Your task to perform on an android device: add a label to a message in the gmail app Image 0: 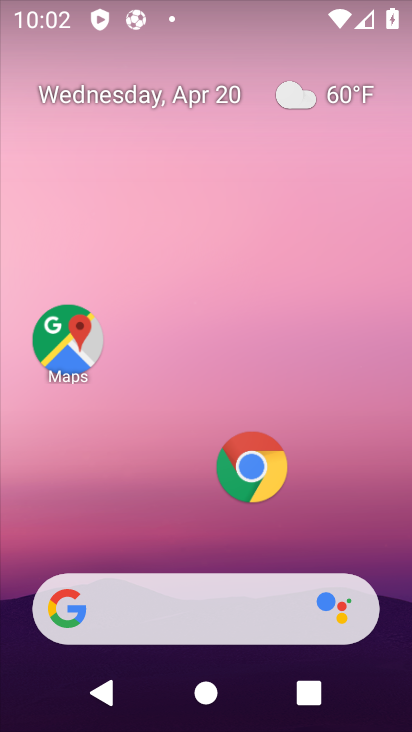
Step 0: drag from (329, 499) to (290, 106)
Your task to perform on an android device: add a label to a message in the gmail app Image 1: 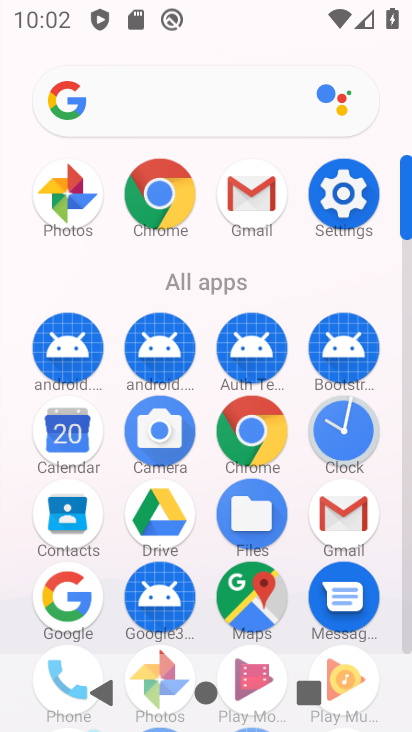
Step 1: click (244, 206)
Your task to perform on an android device: add a label to a message in the gmail app Image 2: 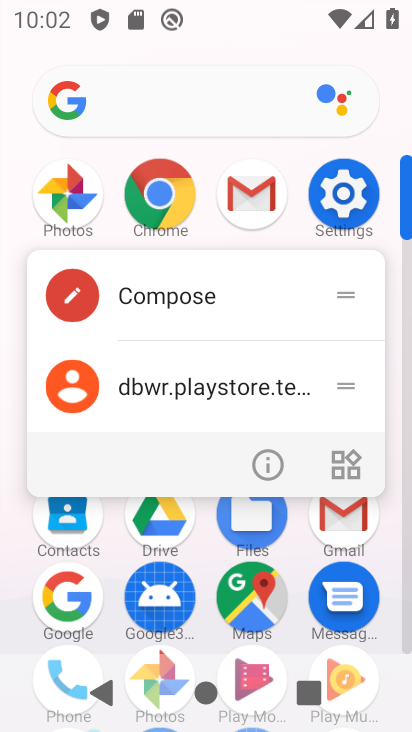
Step 2: click (244, 206)
Your task to perform on an android device: add a label to a message in the gmail app Image 3: 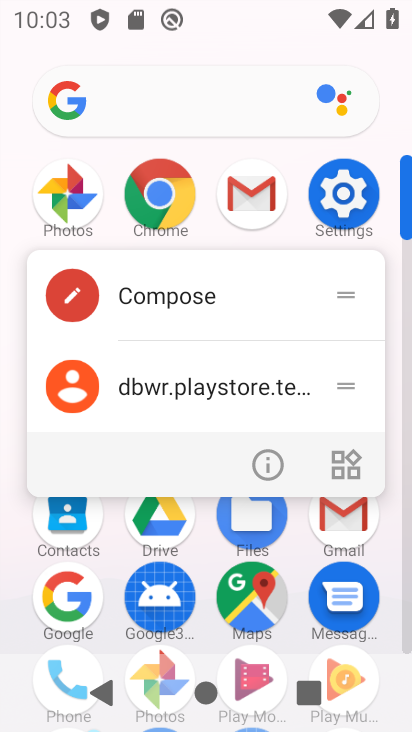
Step 3: click (245, 205)
Your task to perform on an android device: add a label to a message in the gmail app Image 4: 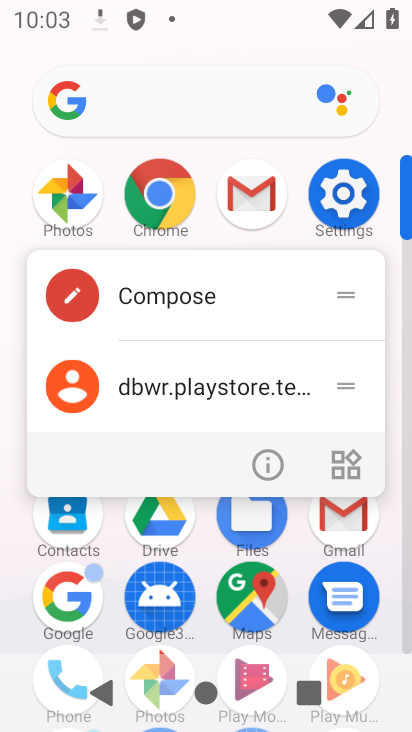
Step 4: click (245, 205)
Your task to perform on an android device: add a label to a message in the gmail app Image 5: 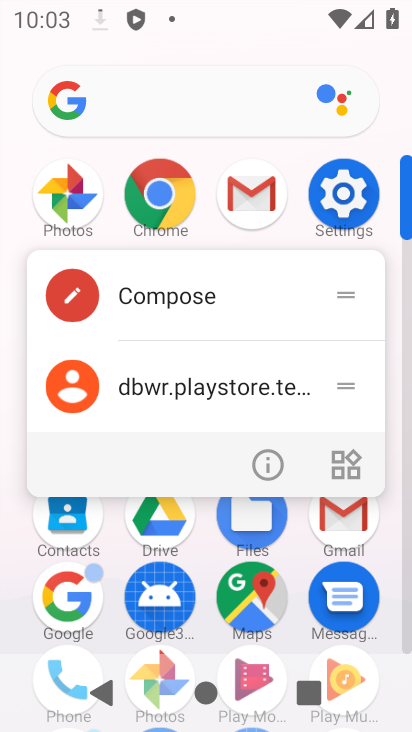
Step 5: click (245, 205)
Your task to perform on an android device: add a label to a message in the gmail app Image 6: 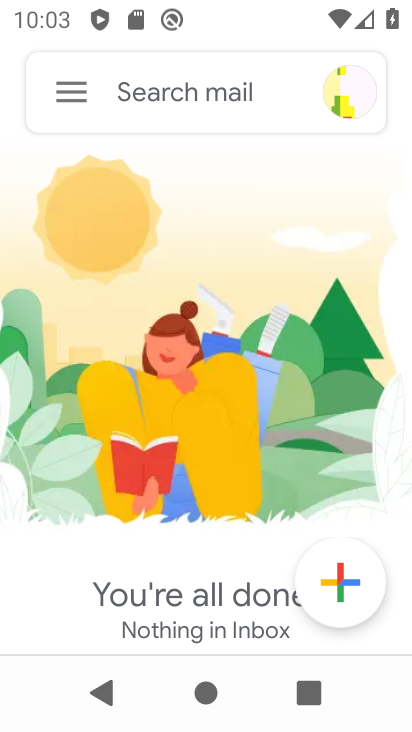
Step 6: click (57, 95)
Your task to perform on an android device: add a label to a message in the gmail app Image 7: 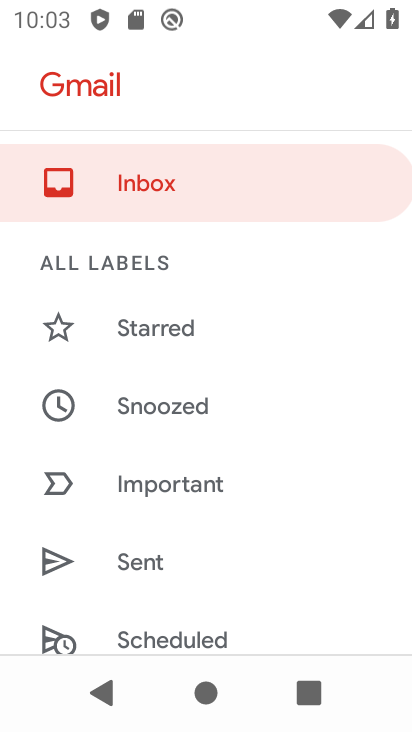
Step 7: drag from (180, 607) to (261, 312)
Your task to perform on an android device: add a label to a message in the gmail app Image 8: 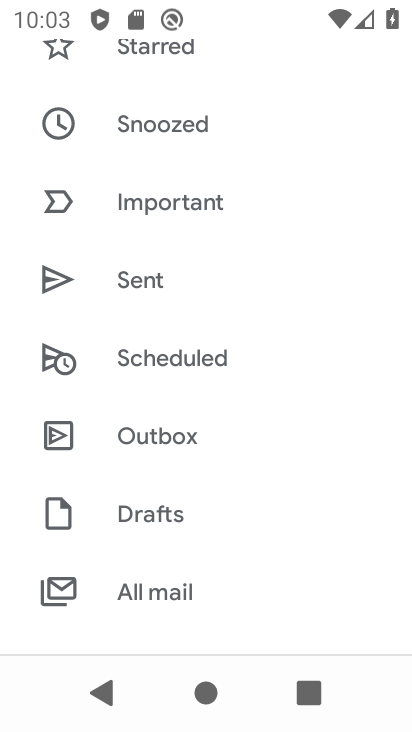
Step 8: click (132, 575)
Your task to perform on an android device: add a label to a message in the gmail app Image 9: 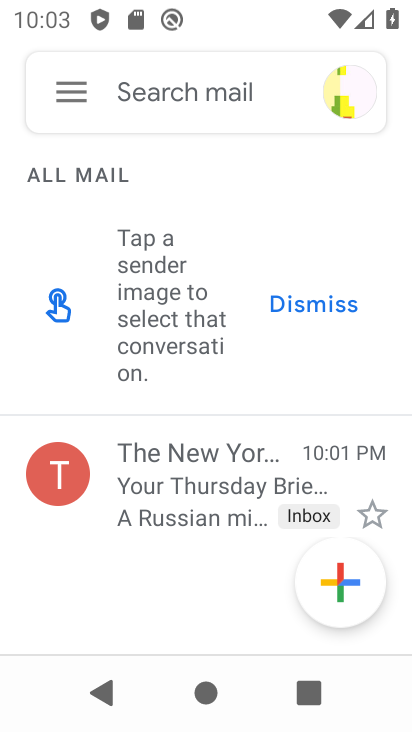
Step 9: click (205, 484)
Your task to perform on an android device: add a label to a message in the gmail app Image 10: 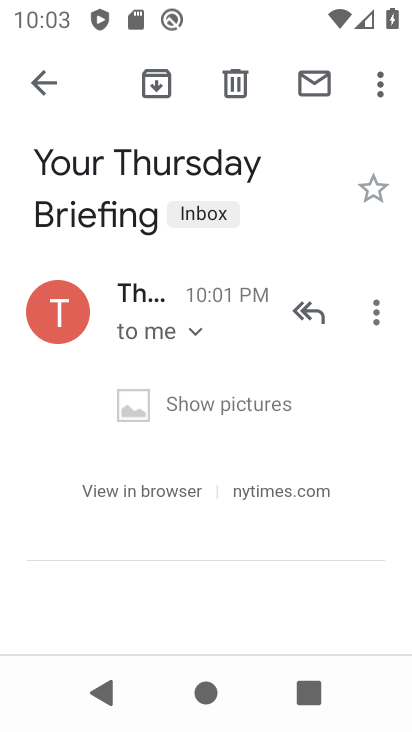
Step 10: click (369, 68)
Your task to perform on an android device: add a label to a message in the gmail app Image 11: 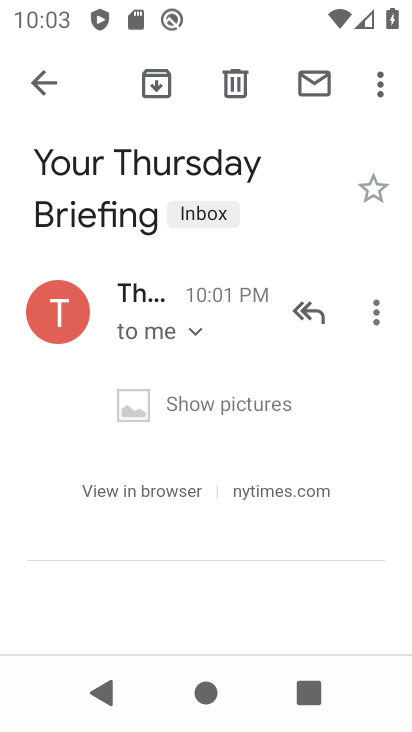
Step 11: click (384, 84)
Your task to perform on an android device: add a label to a message in the gmail app Image 12: 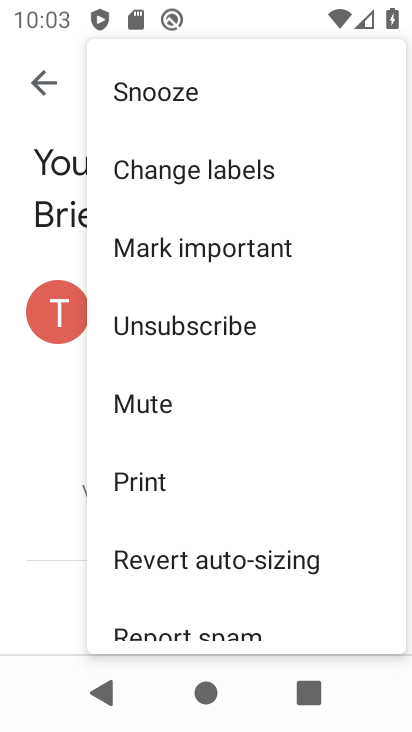
Step 12: click (274, 253)
Your task to perform on an android device: add a label to a message in the gmail app Image 13: 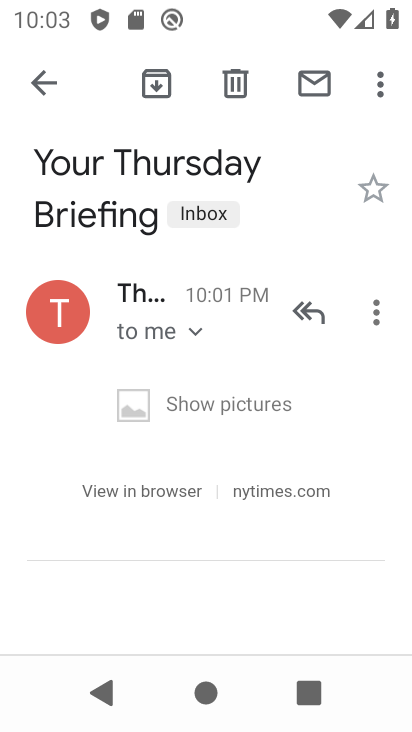
Step 13: task complete